Your task to perform on an android device: Open settings on Google Maps Image 0: 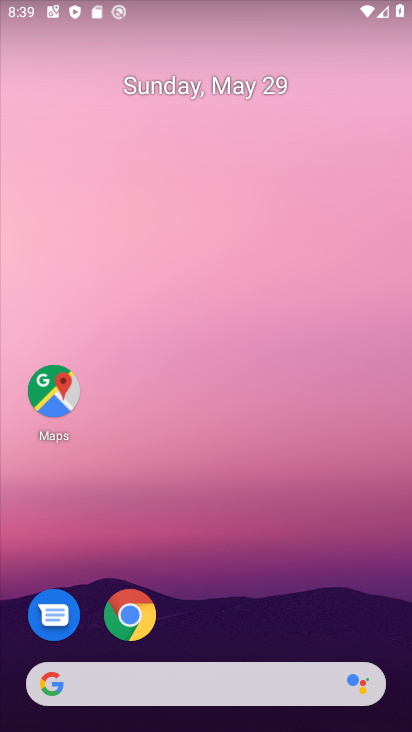
Step 0: drag from (255, 596) to (372, 0)
Your task to perform on an android device: Open settings on Google Maps Image 1: 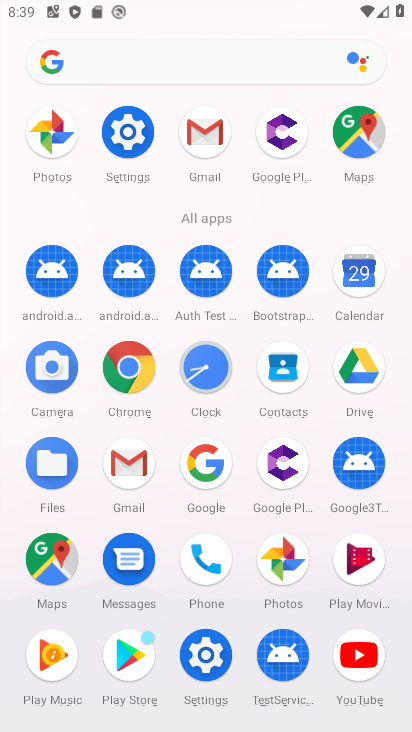
Step 1: click (353, 136)
Your task to perform on an android device: Open settings on Google Maps Image 2: 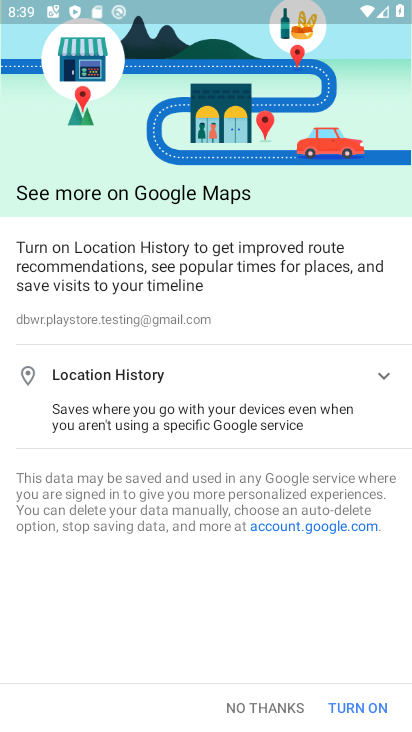
Step 2: click (295, 708)
Your task to perform on an android device: Open settings on Google Maps Image 3: 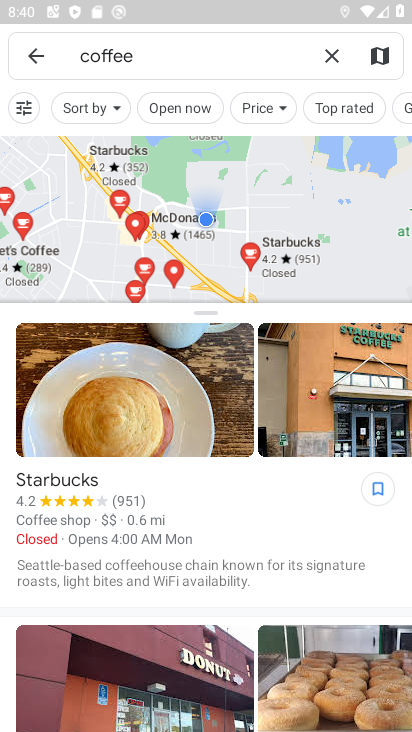
Step 3: click (35, 55)
Your task to perform on an android device: Open settings on Google Maps Image 4: 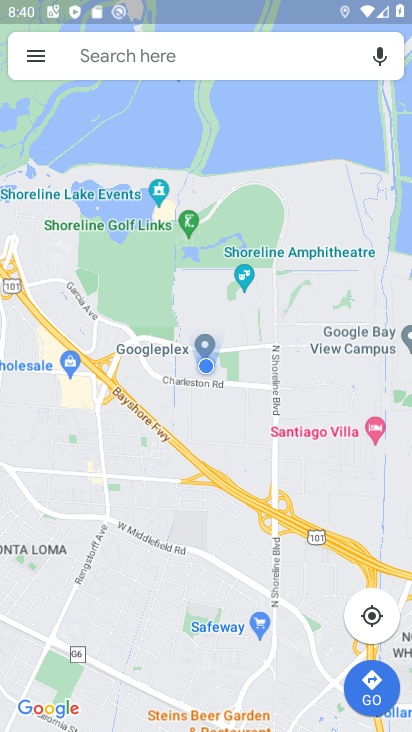
Step 4: click (44, 48)
Your task to perform on an android device: Open settings on Google Maps Image 5: 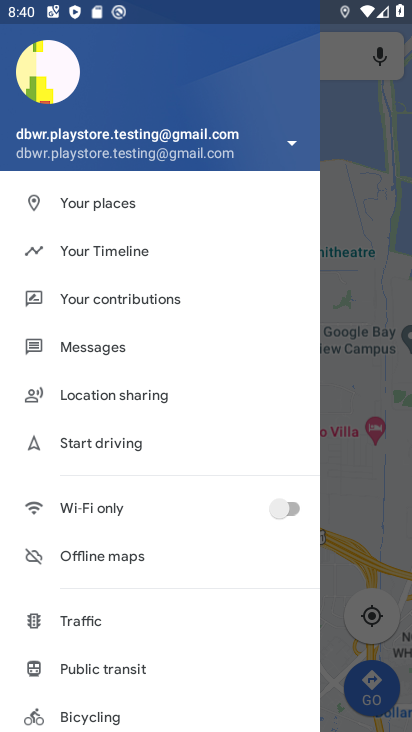
Step 5: drag from (143, 646) to (155, 109)
Your task to perform on an android device: Open settings on Google Maps Image 6: 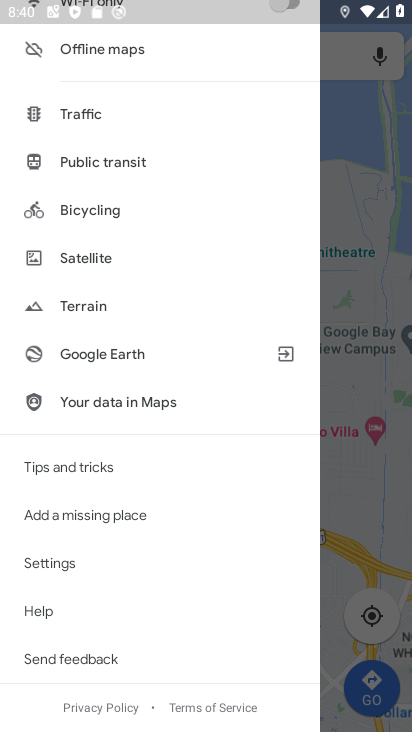
Step 6: click (106, 563)
Your task to perform on an android device: Open settings on Google Maps Image 7: 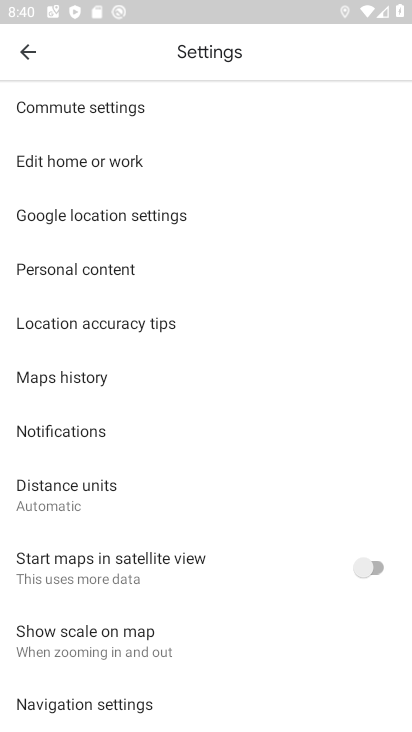
Step 7: task complete